Your task to perform on an android device: When is my next appointment? Image 0: 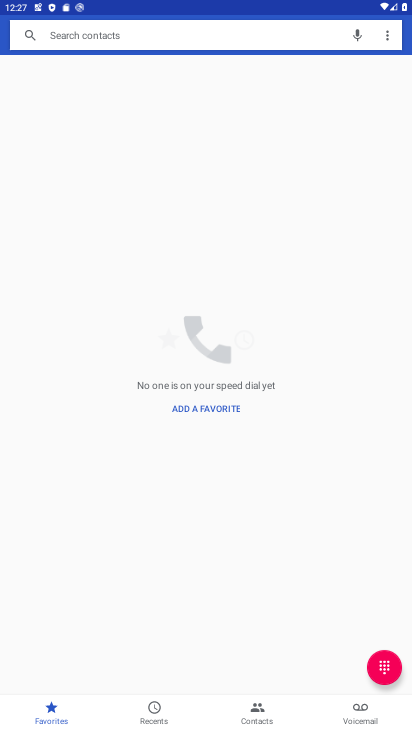
Step 0: press home button
Your task to perform on an android device: When is my next appointment? Image 1: 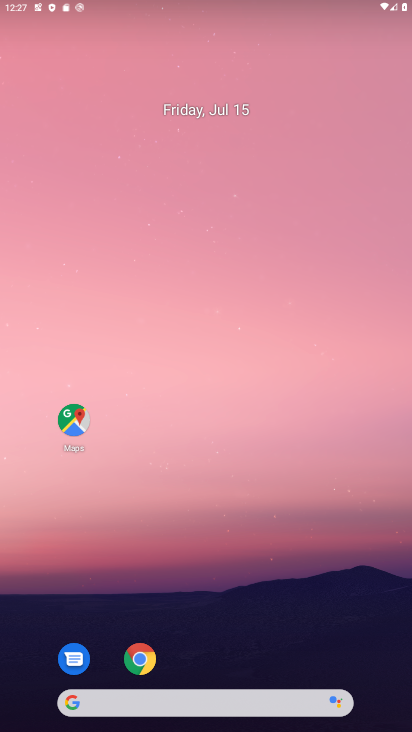
Step 1: drag from (220, 663) to (301, 0)
Your task to perform on an android device: When is my next appointment? Image 2: 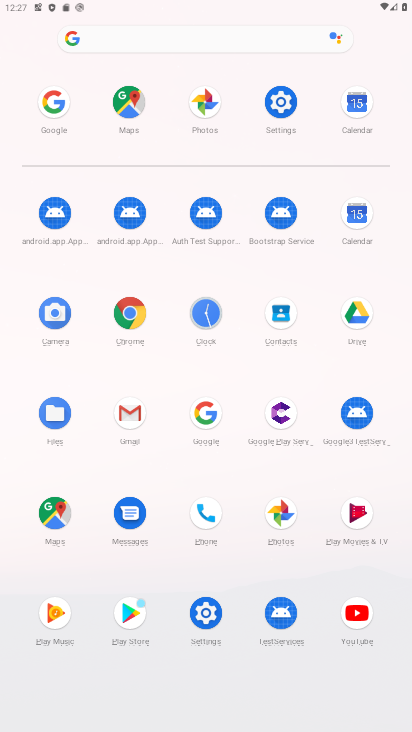
Step 2: click (352, 236)
Your task to perform on an android device: When is my next appointment? Image 3: 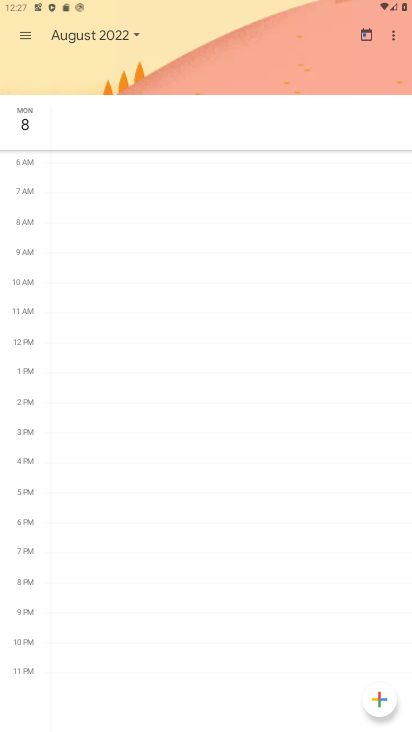
Step 3: click (128, 37)
Your task to perform on an android device: When is my next appointment? Image 4: 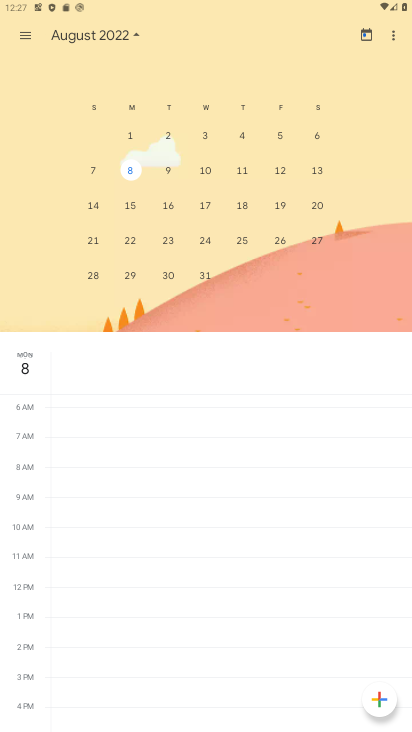
Step 4: task complete